Your task to perform on an android device: toggle improve location accuracy Image 0: 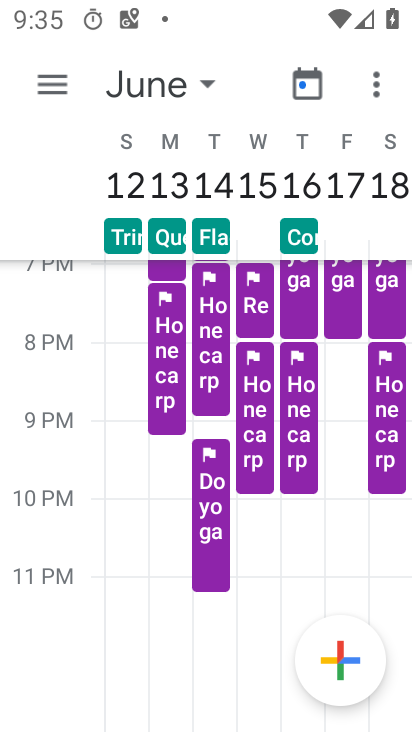
Step 0: press home button
Your task to perform on an android device: toggle improve location accuracy Image 1: 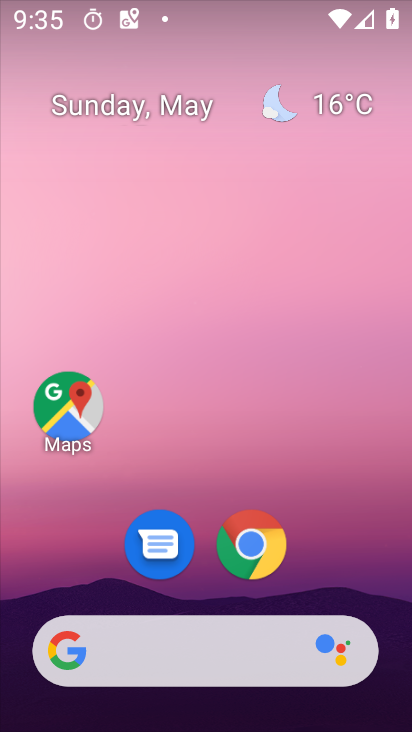
Step 1: drag from (287, 555) to (266, 14)
Your task to perform on an android device: toggle improve location accuracy Image 2: 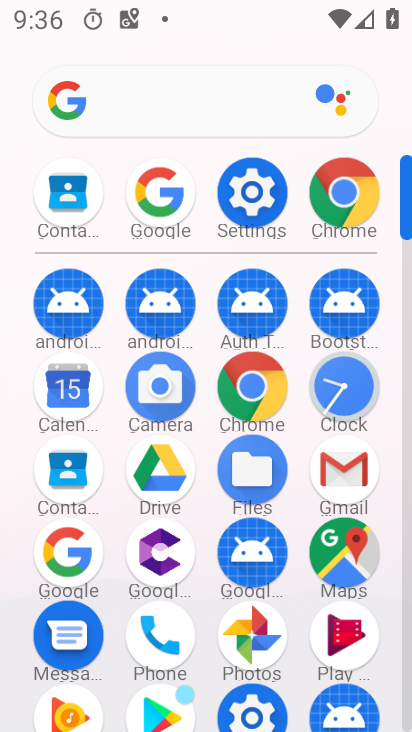
Step 2: click (255, 200)
Your task to perform on an android device: toggle improve location accuracy Image 3: 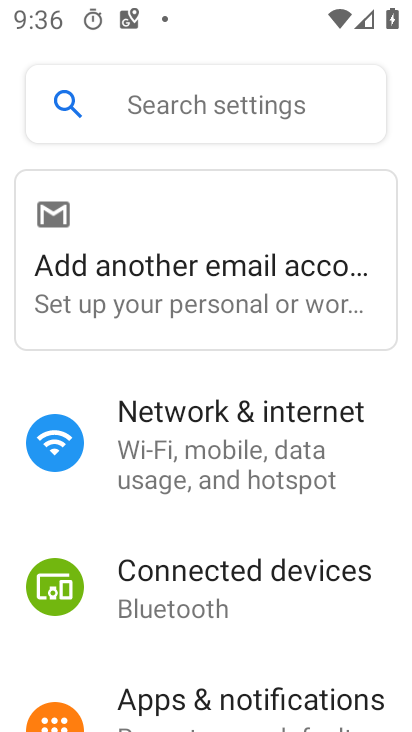
Step 3: drag from (258, 341) to (270, 296)
Your task to perform on an android device: toggle improve location accuracy Image 4: 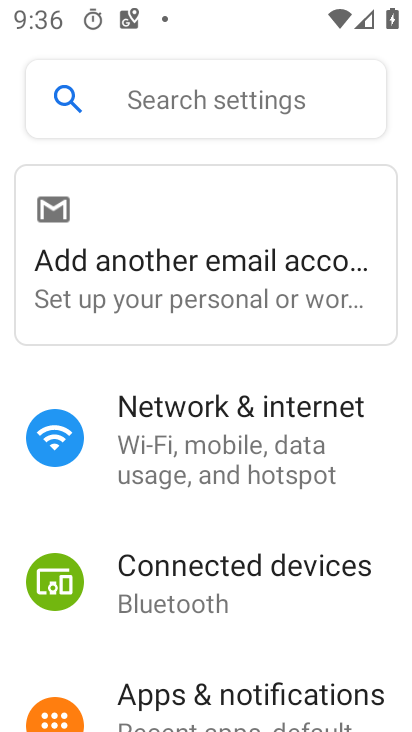
Step 4: drag from (230, 658) to (232, 395)
Your task to perform on an android device: toggle improve location accuracy Image 5: 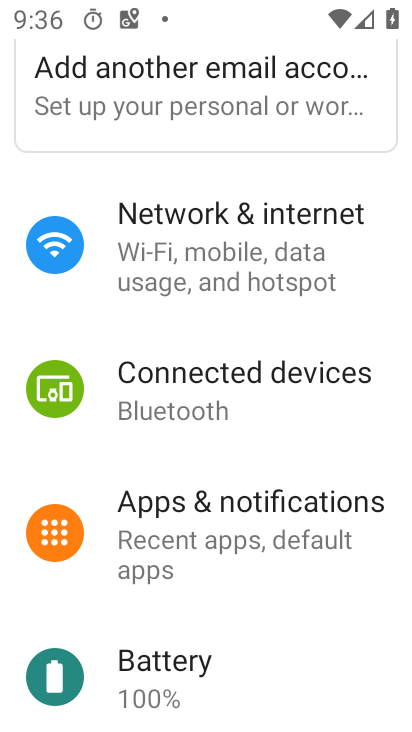
Step 5: drag from (296, 619) to (284, 168)
Your task to perform on an android device: toggle improve location accuracy Image 6: 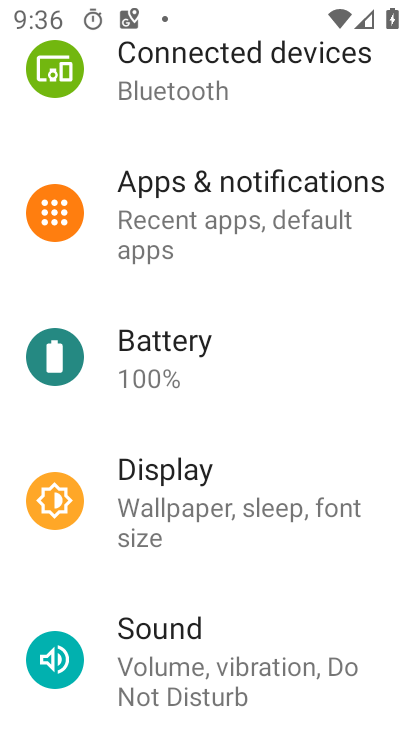
Step 6: drag from (170, 609) to (212, 391)
Your task to perform on an android device: toggle improve location accuracy Image 7: 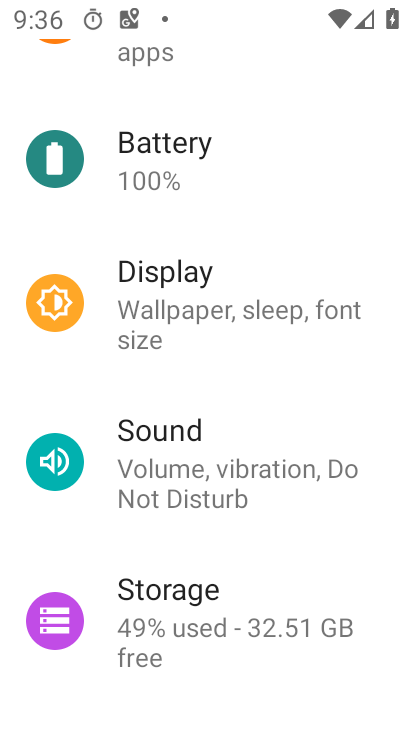
Step 7: drag from (164, 609) to (164, 312)
Your task to perform on an android device: toggle improve location accuracy Image 8: 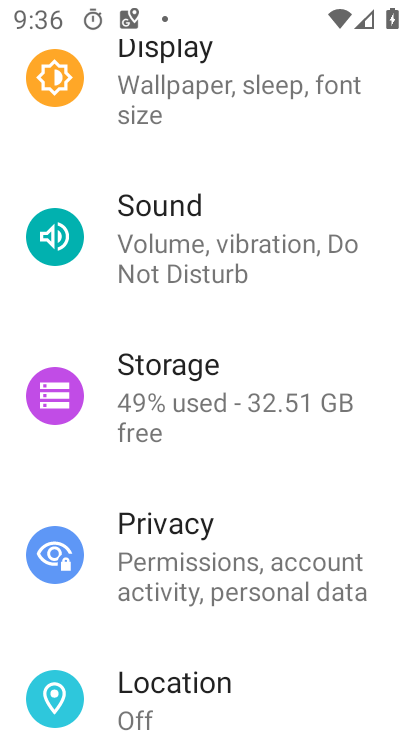
Step 8: click (211, 692)
Your task to perform on an android device: toggle improve location accuracy Image 9: 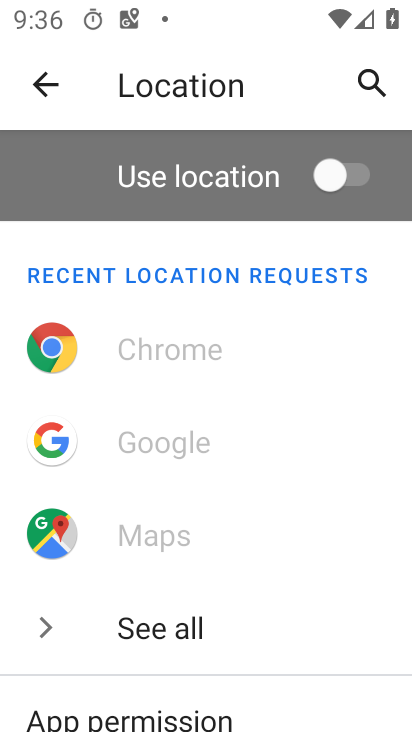
Step 9: drag from (226, 657) to (200, 277)
Your task to perform on an android device: toggle improve location accuracy Image 10: 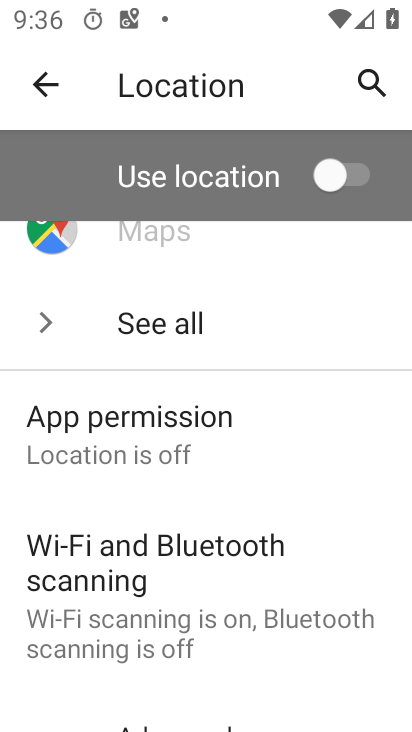
Step 10: drag from (203, 593) to (215, 323)
Your task to perform on an android device: toggle improve location accuracy Image 11: 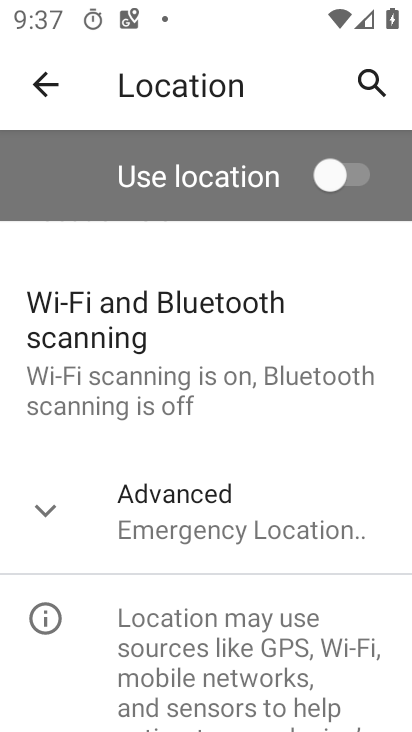
Step 11: click (171, 510)
Your task to perform on an android device: toggle improve location accuracy Image 12: 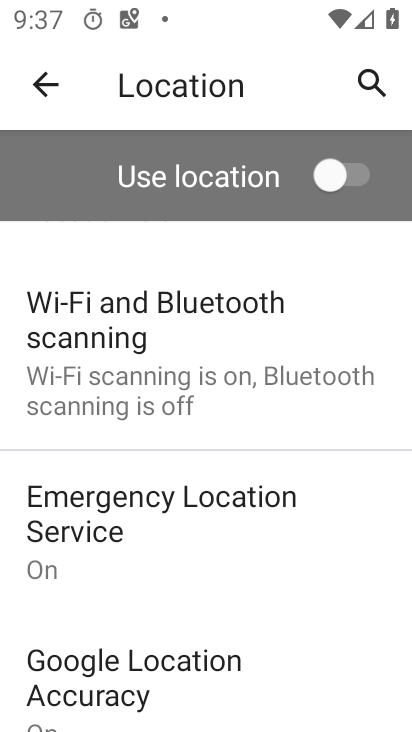
Step 12: drag from (193, 691) to (251, 473)
Your task to perform on an android device: toggle improve location accuracy Image 13: 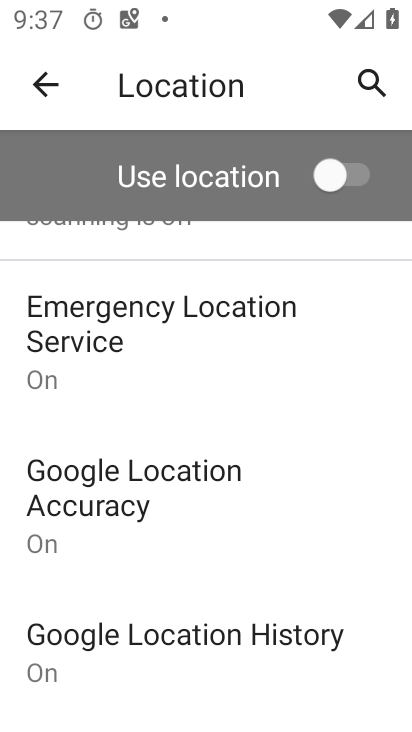
Step 13: click (215, 504)
Your task to perform on an android device: toggle improve location accuracy Image 14: 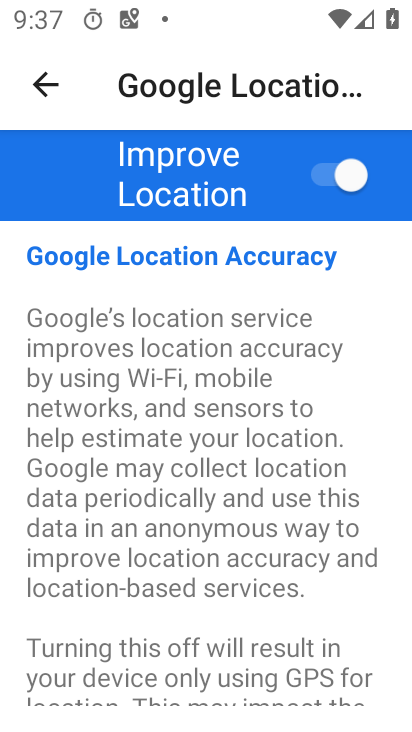
Step 14: click (318, 173)
Your task to perform on an android device: toggle improve location accuracy Image 15: 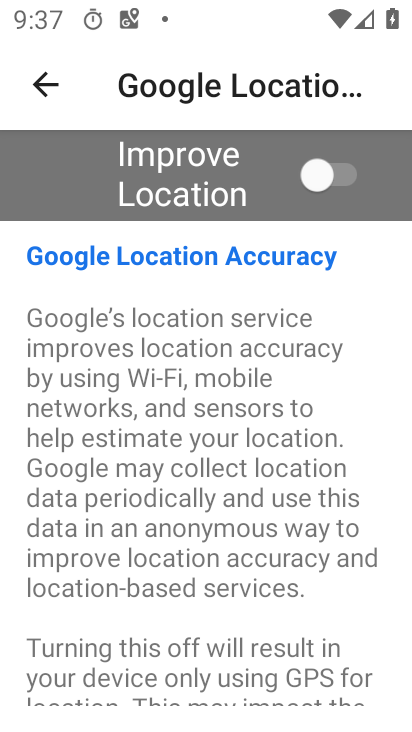
Step 15: task complete